Your task to perform on an android device: delete browsing data in the chrome app Image 0: 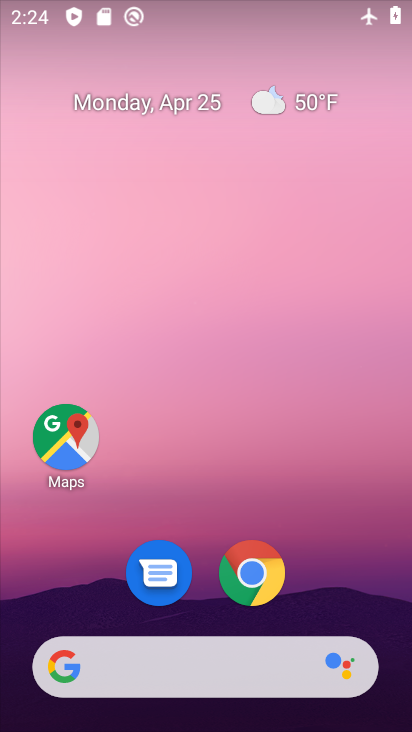
Step 0: drag from (344, 574) to (345, 0)
Your task to perform on an android device: delete browsing data in the chrome app Image 1: 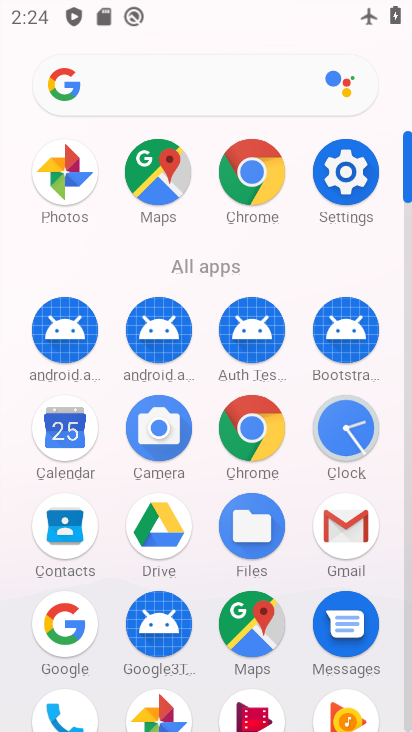
Step 1: click (248, 170)
Your task to perform on an android device: delete browsing data in the chrome app Image 2: 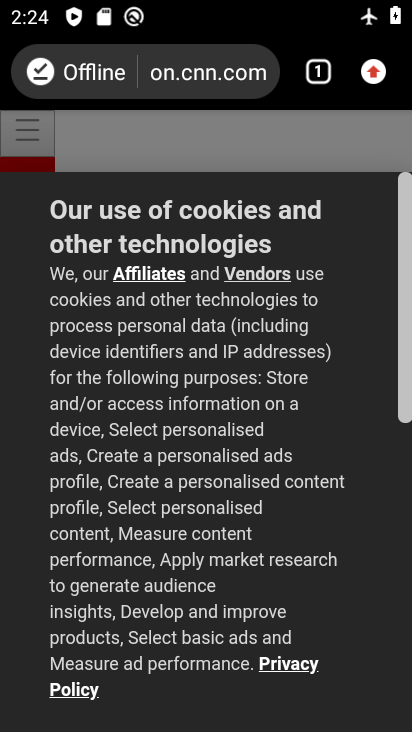
Step 2: click (377, 58)
Your task to perform on an android device: delete browsing data in the chrome app Image 3: 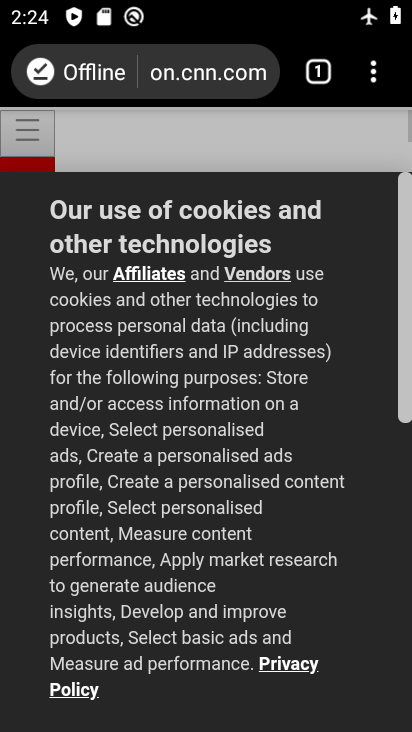
Step 3: drag from (367, 69) to (205, 483)
Your task to perform on an android device: delete browsing data in the chrome app Image 4: 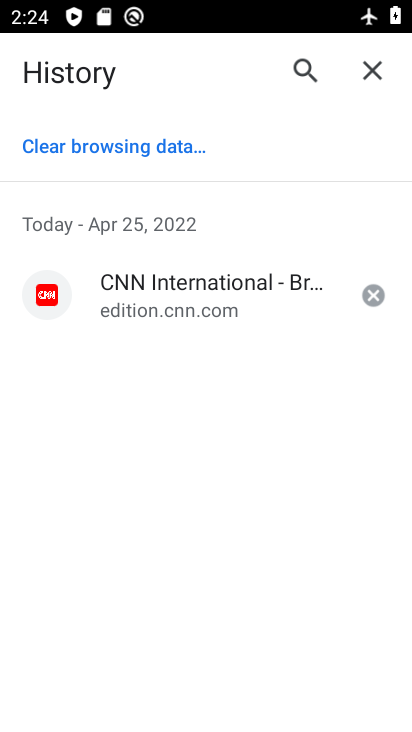
Step 4: click (136, 147)
Your task to perform on an android device: delete browsing data in the chrome app Image 5: 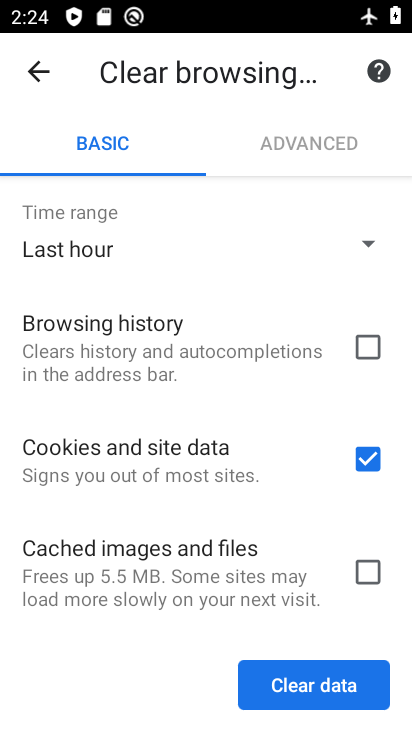
Step 5: drag from (80, 509) to (134, 292)
Your task to perform on an android device: delete browsing data in the chrome app Image 6: 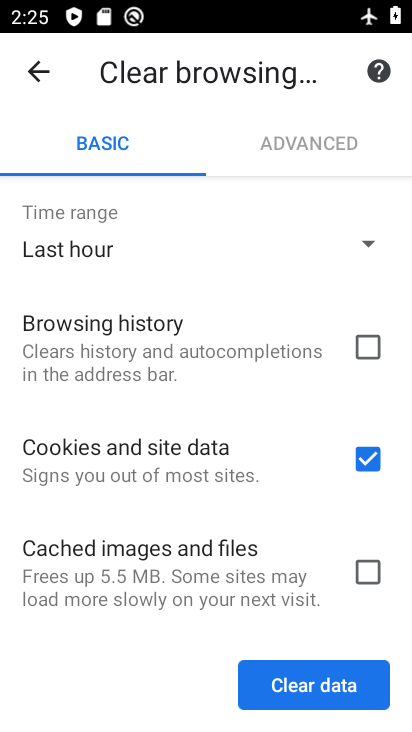
Step 6: click (365, 355)
Your task to perform on an android device: delete browsing data in the chrome app Image 7: 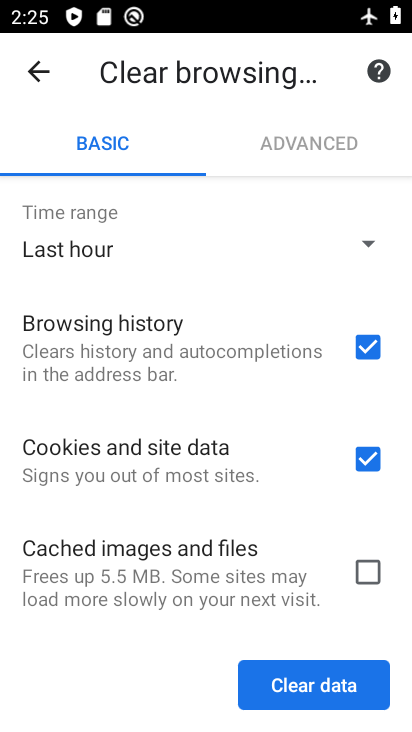
Step 7: click (370, 458)
Your task to perform on an android device: delete browsing data in the chrome app Image 8: 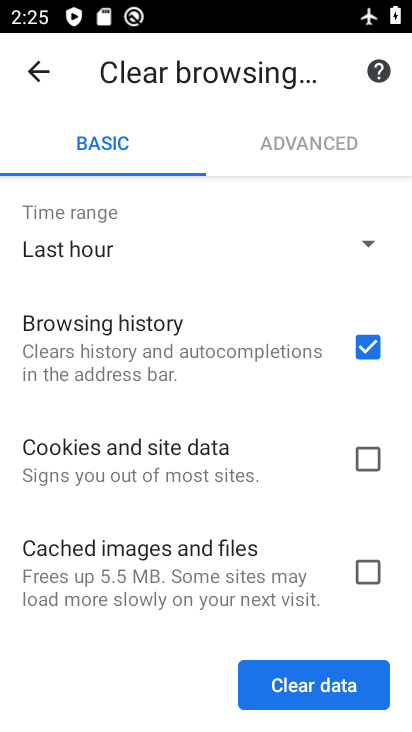
Step 8: click (354, 686)
Your task to perform on an android device: delete browsing data in the chrome app Image 9: 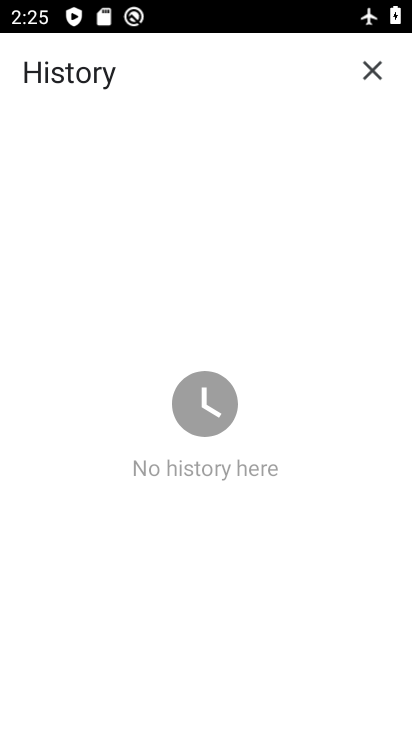
Step 9: task complete